Your task to perform on an android device: Open accessibility settings Image 0: 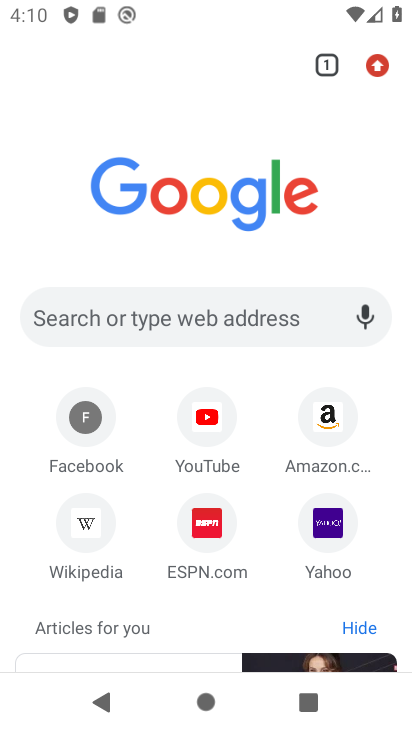
Step 0: press home button
Your task to perform on an android device: Open accessibility settings Image 1: 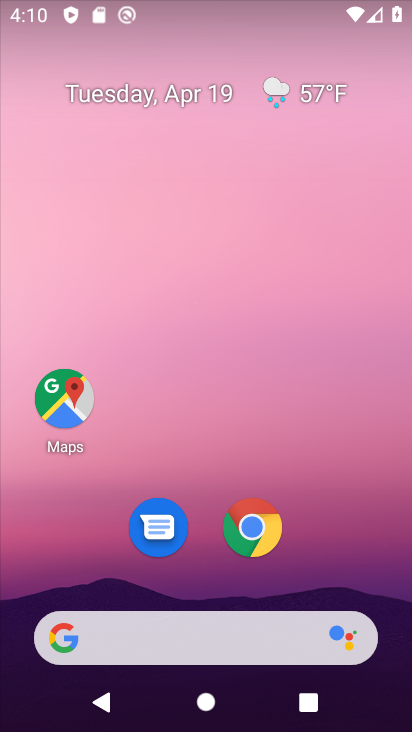
Step 1: drag from (383, 593) to (301, 182)
Your task to perform on an android device: Open accessibility settings Image 2: 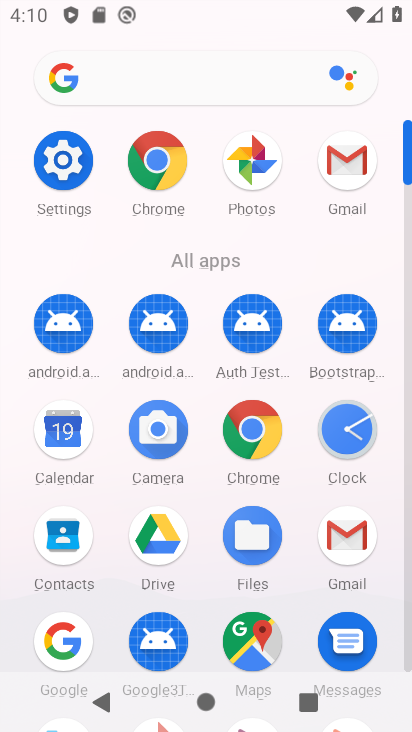
Step 2: click (406, 654)
Your task to perform on an android device: Open accessibility settings Image 3: 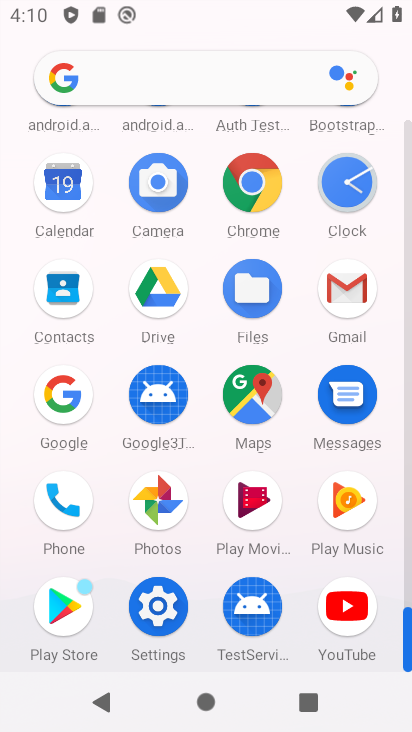
Step 3: click (158, 603)
Your task to perform on an android device: Open accessibility settings Image 4: 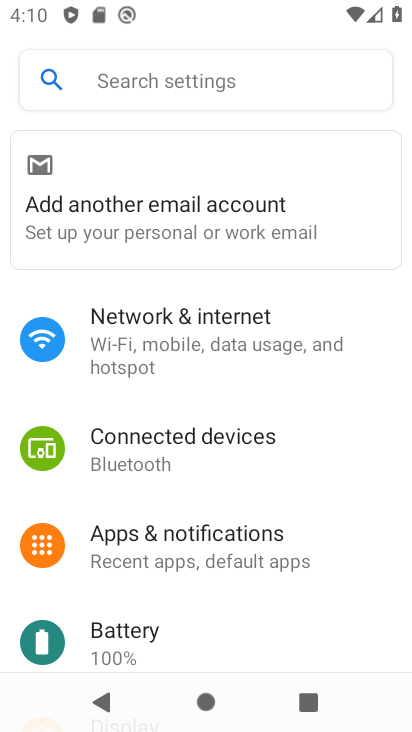
Step 4: drag from (326, 591) to (352, 279)
Your task to perform on an android device: Open accessibility settings Image 5: 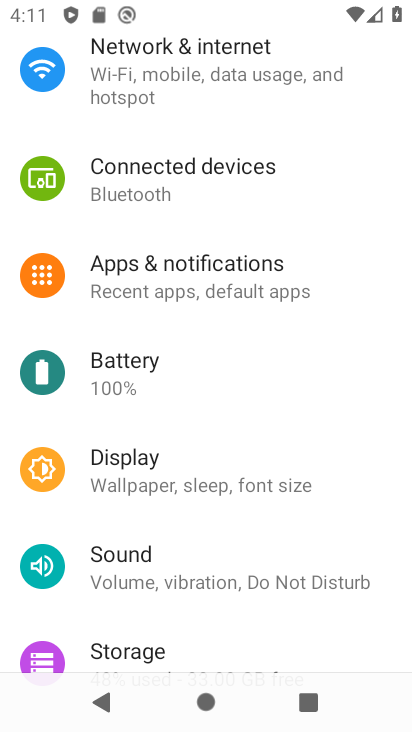
Step 5: drag from (344, 526) to (329, 286)
Your task to perform on an android device: Open accessibility settings Image 6: 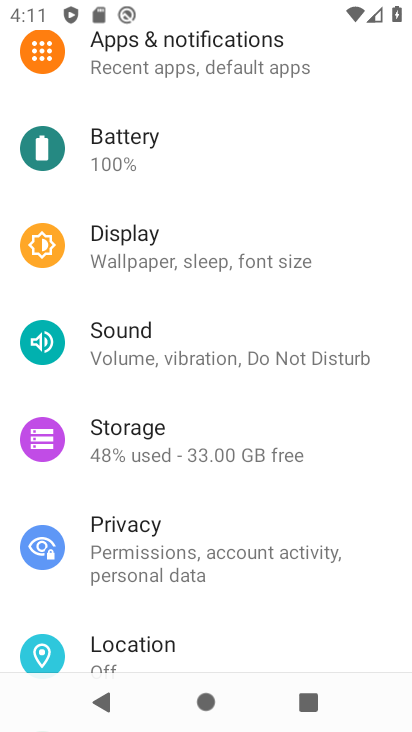
Step 6: drag from (325, 488) to (378, 253)
Your task to perform on an android device: Open accessibility settings Image 7: 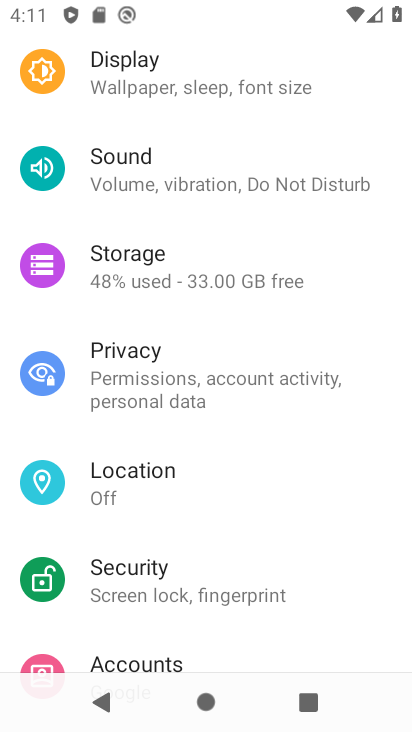
Step 7: drag from (331, 549) to (371, 173)
Your task to perform on an android device: Open accessibility settings Image 8: 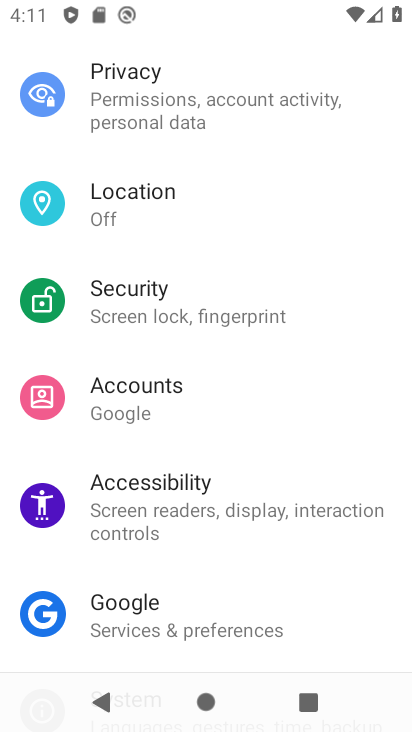
Step 8: click (136, 510)
Your task to perform on an android device: Open accessibility settings Image 9: 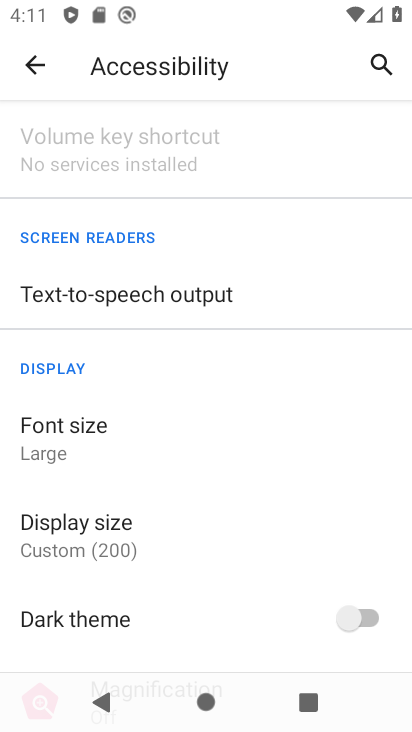
Step 9: task complete